Your task to perform on an android device: set an alarm Image 0: 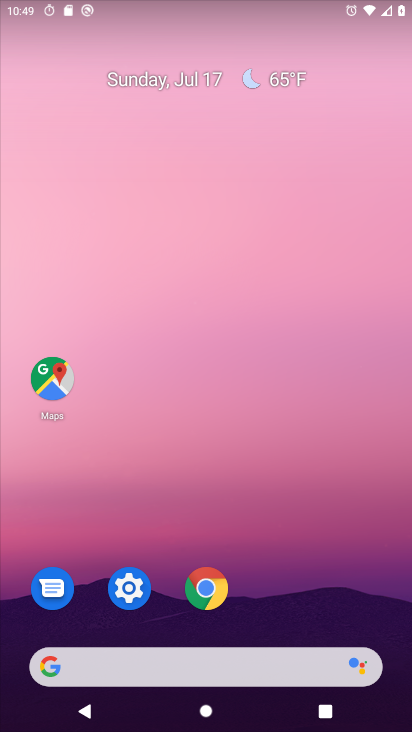
Step 0: click (383, 91)
Your task to perform on an android device: set an alarm Image 1: 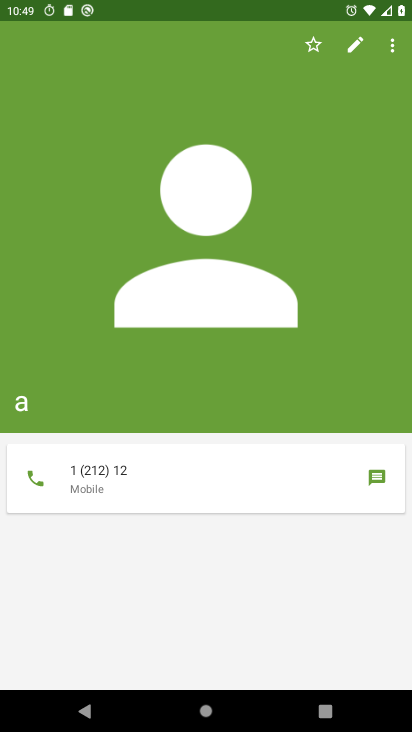
Step 1: press back button
Your task to perform on an android device: set an alarm Image 2: 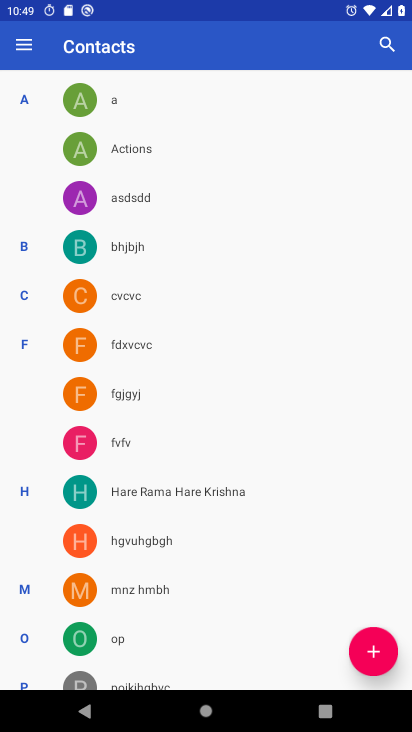
Step 2: press home button
Your task to perform on an android device: set an alarm Image 3: 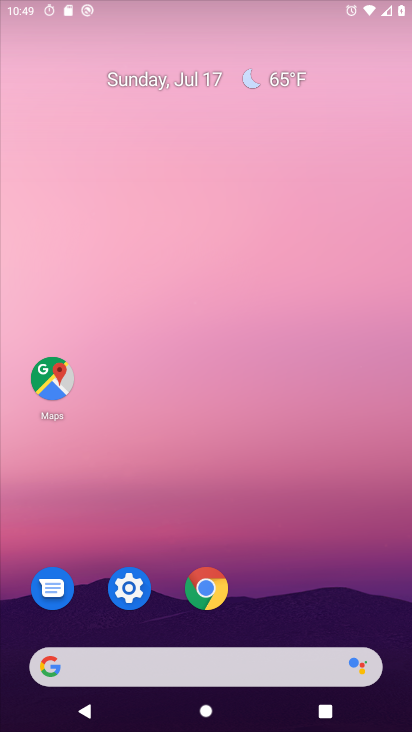
Step 3: drag from (183, 691) to (166, 52)
Your task to perform on an android device: set an alarm Image 4: 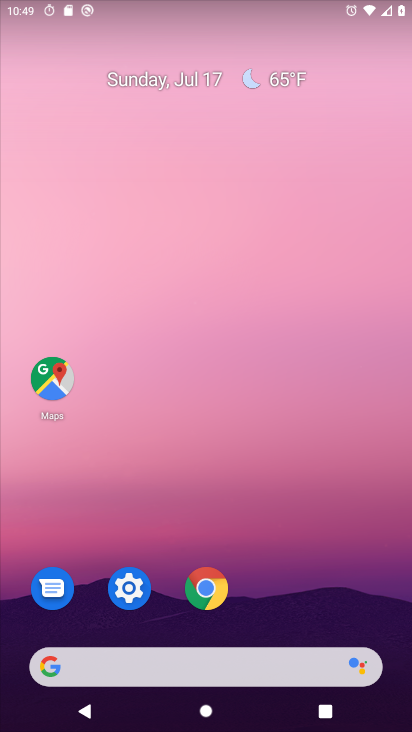
Step 4: drag from (242, 615) to (191, 110)
Your task to perform on an android device: set an alarm Image 5: 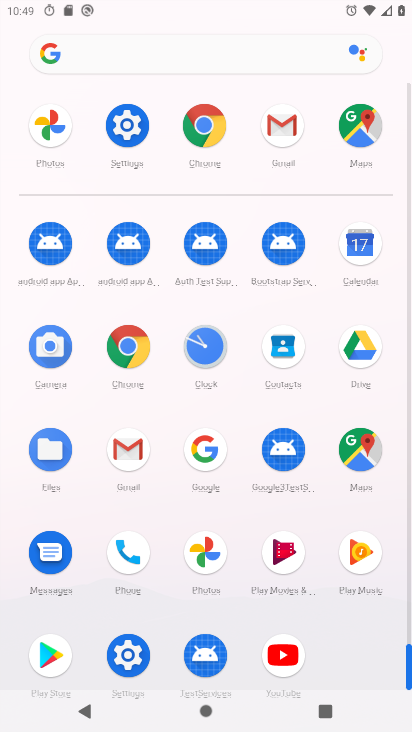
Step 5: click (205, 344)
Your task to perform on an android device: set an alarm Image 6: 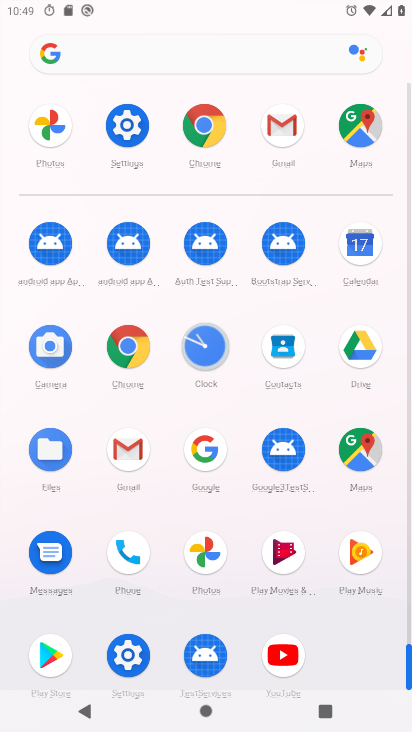
Step 6: click (205, 344)
Your task to perform on an android device: set an alarm Image 7: 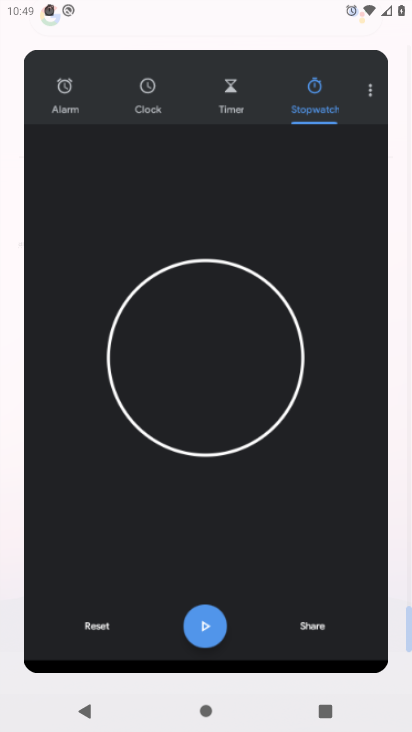
Step 7: click (205, 344)
Your task to perform on an android device: set an alarm Image 8: 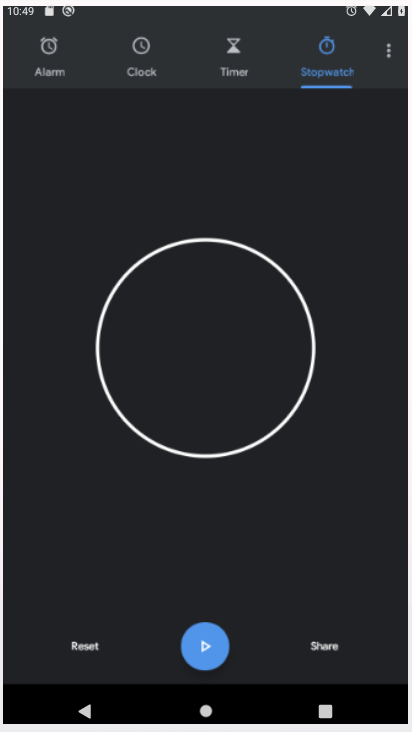
Step 8: click (210, 347)
Your task to perform on an android device: set an alarm Image 9: 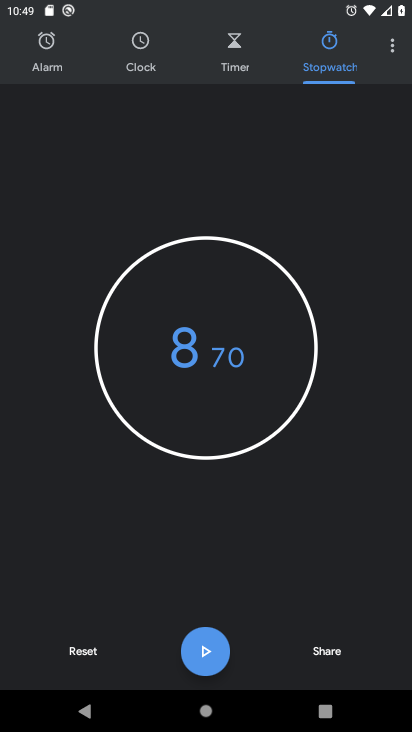
Step 9: click (62, 56)
Your task to perform on an android device: set an alarm Image 10: 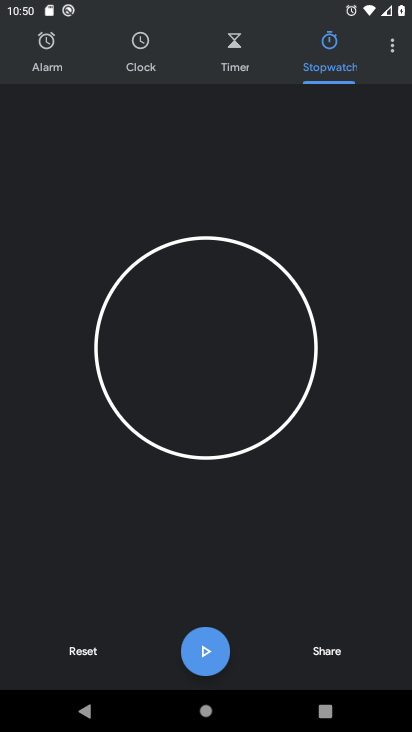
Step 10: click (38, 54)
Your task to perform on an android device: set an alarm Image 11: 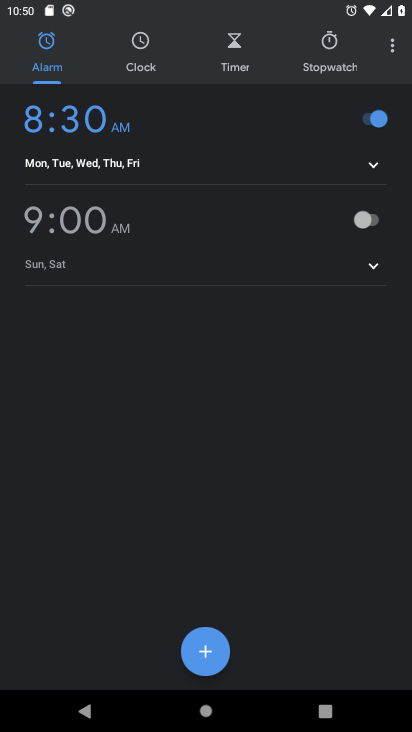
Step 11: click (57, 72)
Your task to perform on an android device: set an alarm Image 12: 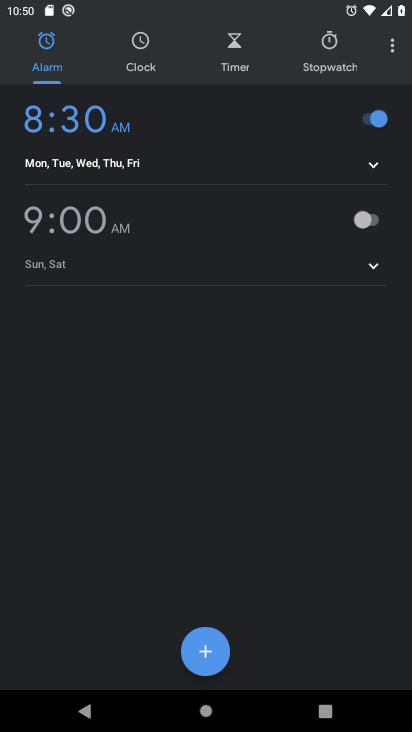
Step 12: click (370, 225)
Your task to perform on an android device: set an alarm Image 13: 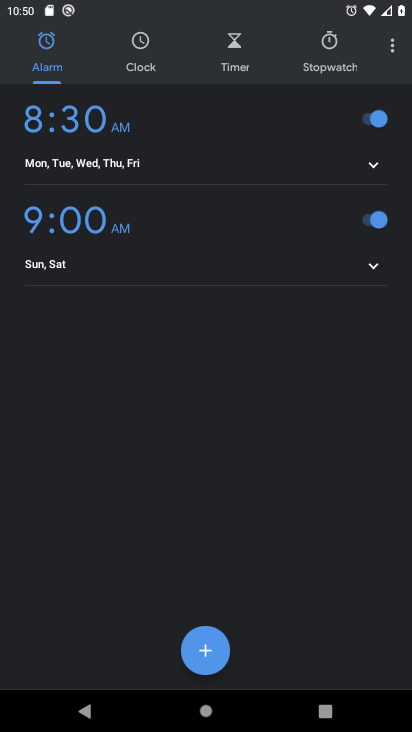
Step 13: task complete